Your task to perform on an android device: turn pop-ups off in chrome Image 0: 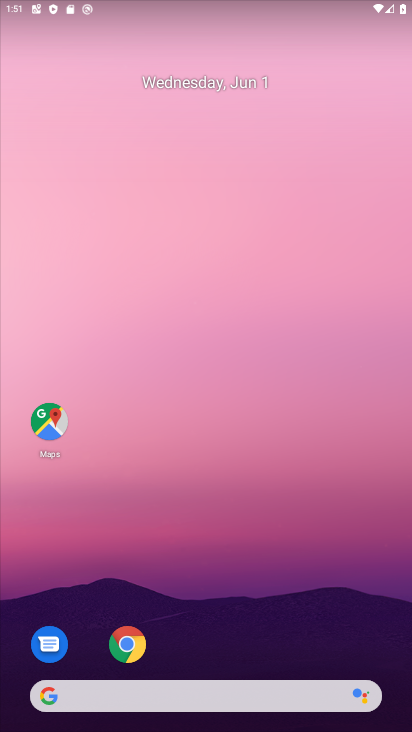
Step 0: click (129, 639)
Your task to perform on an android device: turn pop-ups off in chrome Image 1: 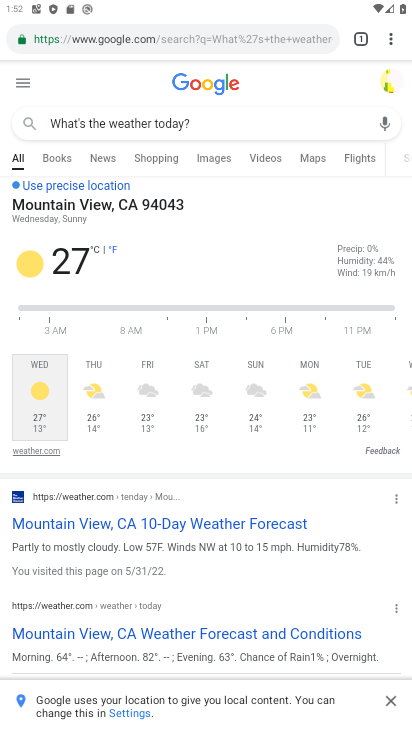
Step 1: click (389, 39)
Your task to perform on an android device: turn pop-ups off in chrome Image 2: 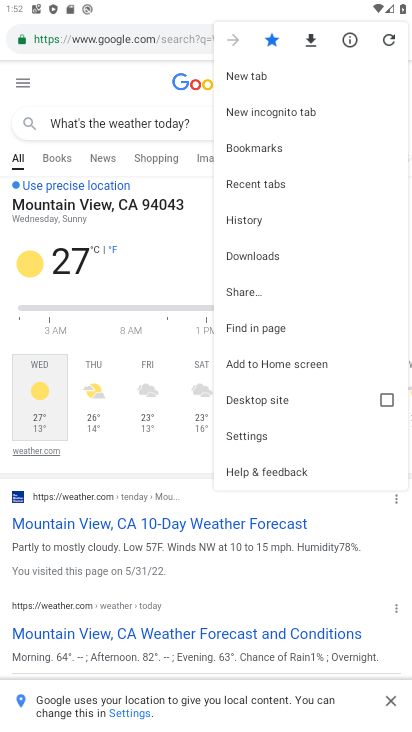
Step 2: click (255, 438)
Your task to perform on an android device: turn pop-ups off in chrome Image 3: 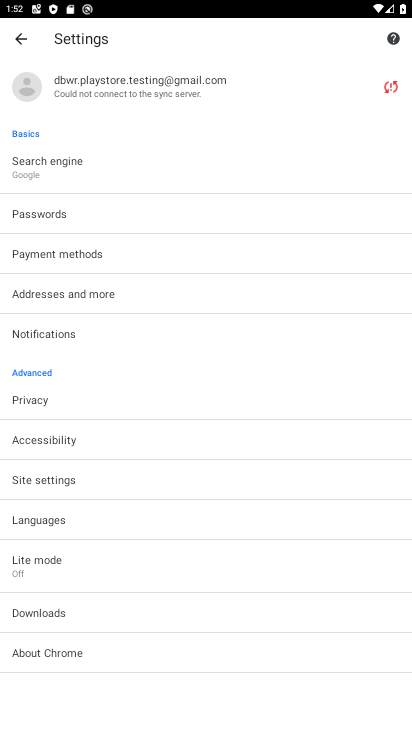
Step 3: click (65, 487)
Your task to perform on an android device: turn pop-ups off in chrome Image 4: 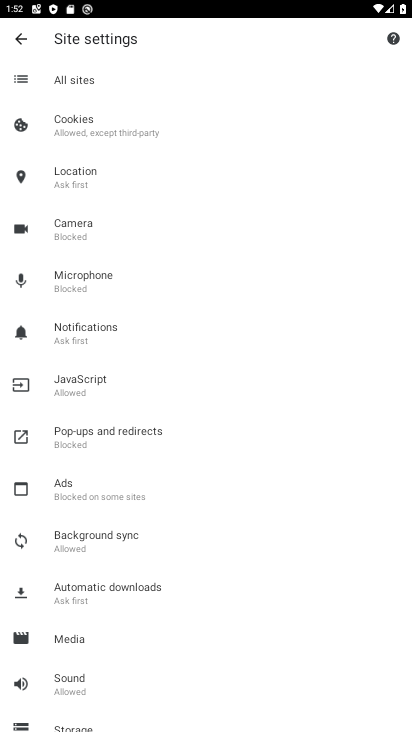
Step 4: click (96, 440)
Your task to perform on an android device: turn pop-ups off in chrome Image 5: 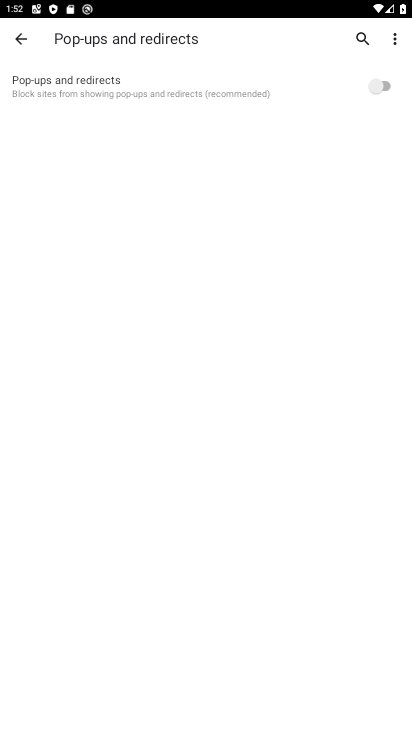
Step 5: task complete